Your task to perform on an android device: read, delete, or share a saved page in the chrome app Image 0: 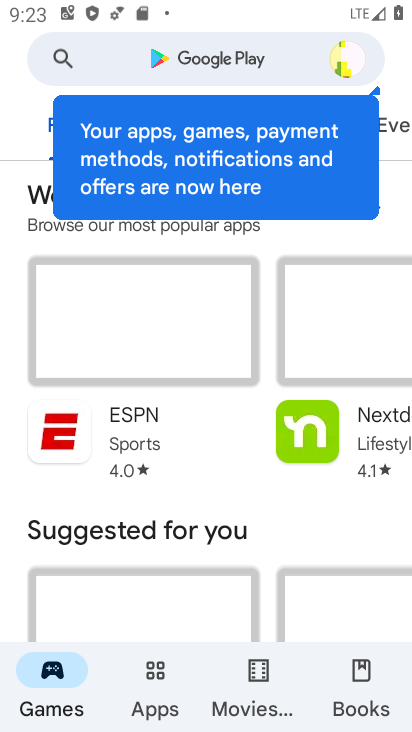
Step 0: press home button
Your task to perform on an android device: read, delete, or share a saved page in the chrome app Image 1: 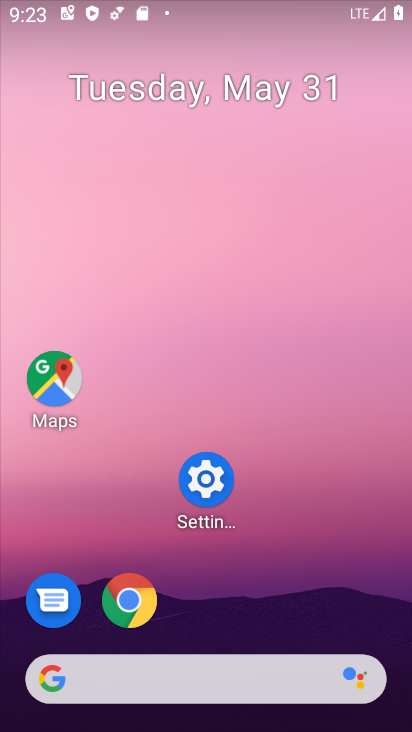
Step 1: click (144, 609)
Your task to perform on an android device: read, delete, or share a saved page in the chrome app Image 2: 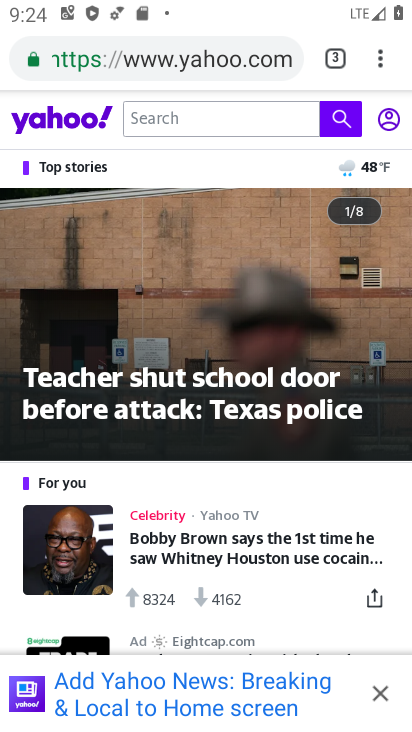
Step 2: click (371, 66)
Your task to perform on an android device: read, delete, or share a saved page in the chrome app Image 3: 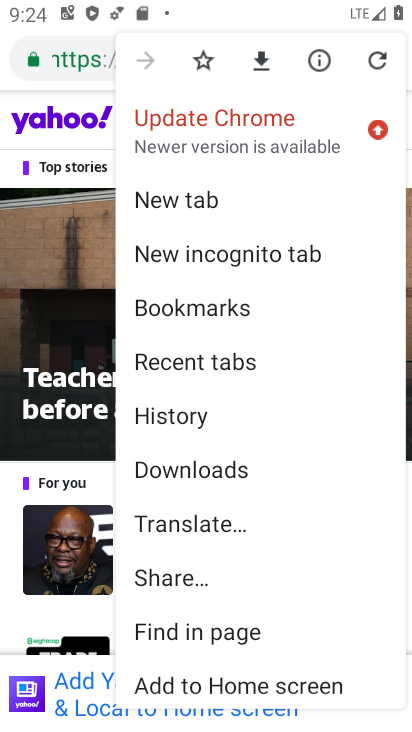
Step 3: click (178, 574)
Your task to perform on an android device: read, delete, or share a saved page in the chrome app Image 4: 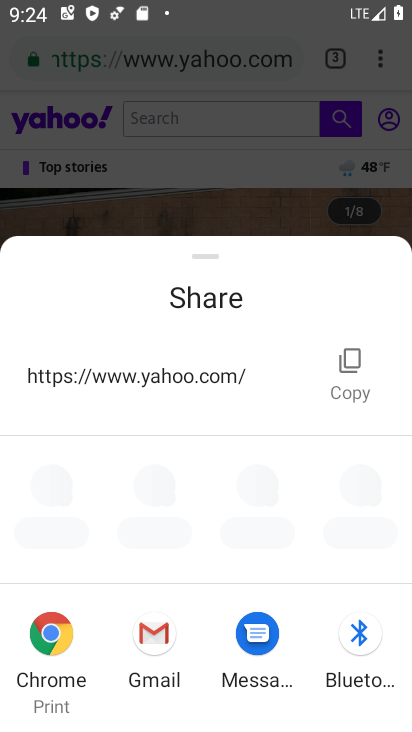
Step 4: task complete